Your task to perform on an android device: delete browsing data in the chrome app Image 0: 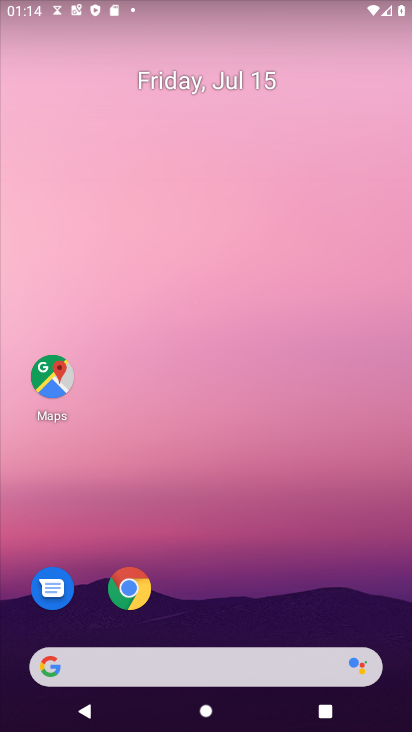
Step 0: click (132, 586)
Your task to perform on an android device: delete browsing data in the chrome app Image 1: 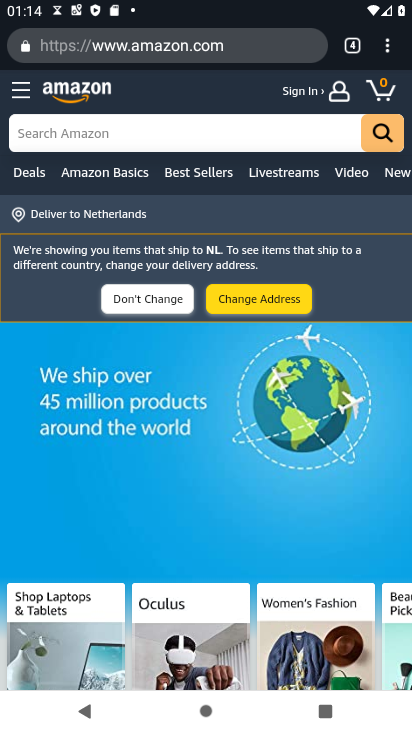
Step 1: drag from (387, 40) to (258, 259)
Your task to perform on an android device: delete browsing data in the chrome app Image 2: 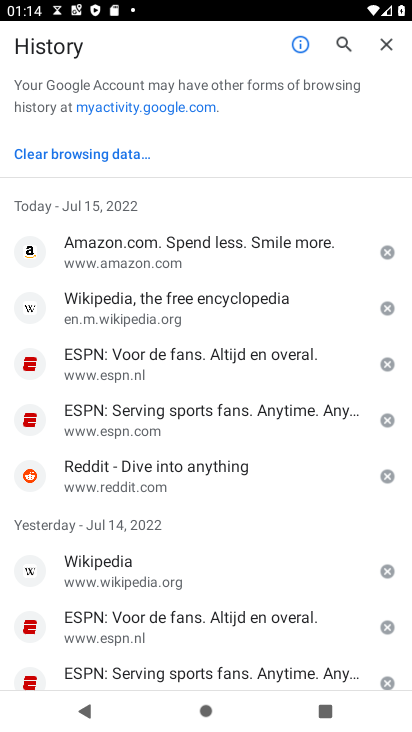
Step 2: click (115, 153)
Your task to perform on an android device: delete browsing data in the chrome app Image 3: 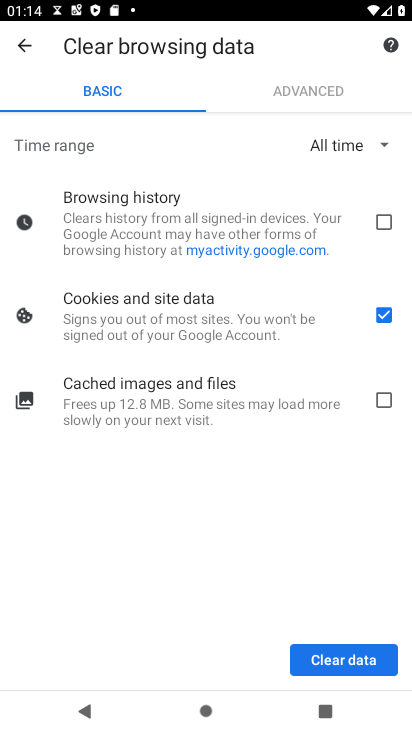
Step 3: click (370, 222)
Your task to perform on an android device: delete browsing data in the chrome app Image 4: 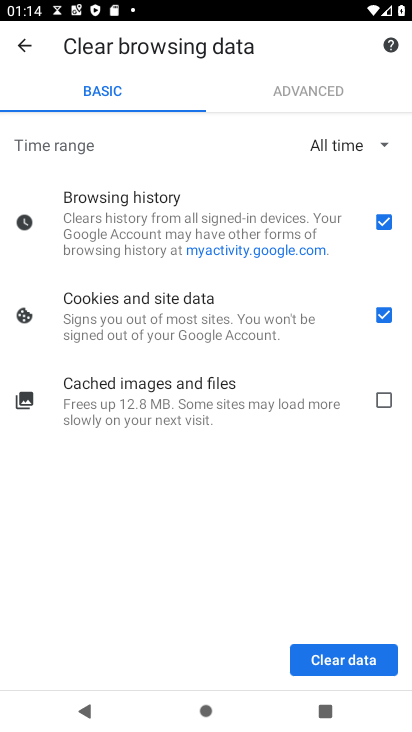
Step 4: click (386, 394)
Your task to perform on an android device: delete browsing data in the chrome app Image 5: 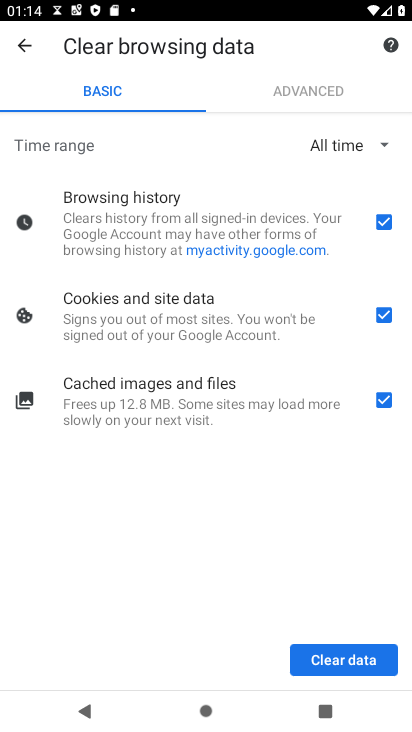
Step 5: click (388, 652)
Your task to perform on an android device: delete browsing data in the chrome app Image 6: 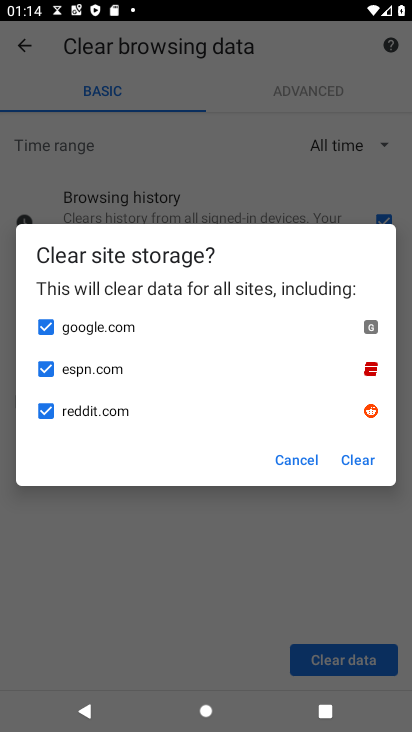
Step 6: click (370, 458)
Your task to perform on an android device: delete browsing data in the chrome app Image 7: 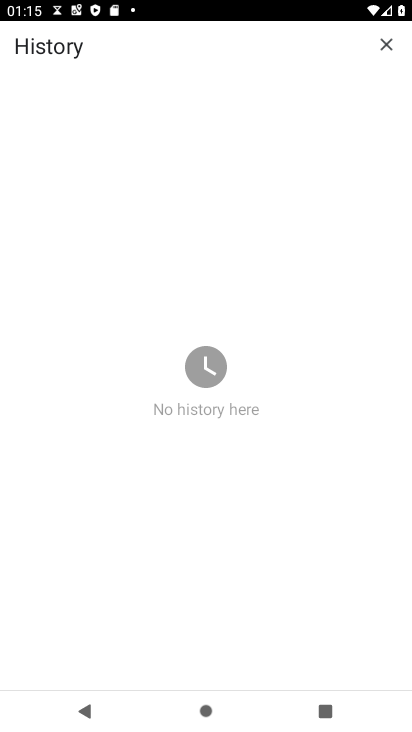
Step 7: task complete